Your task to perform on an android device: change notifications settings Image 0: 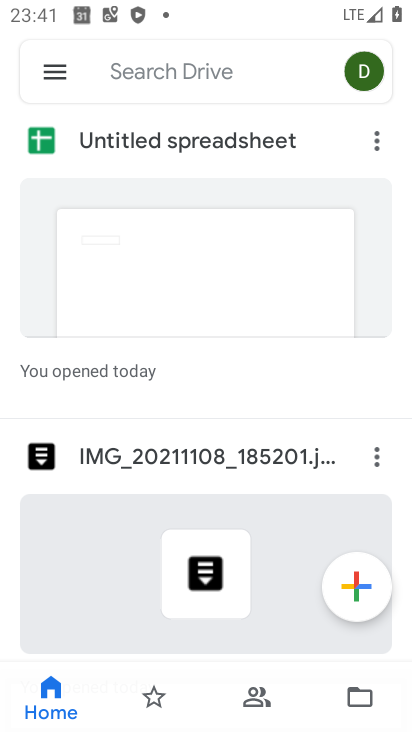
Step 0: press home button
Your task to perform on an android device: change notifications settings Image 1: 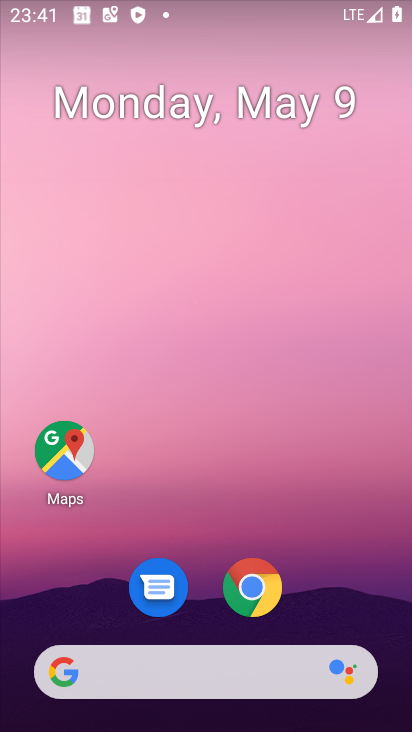
Step 1: drag from (191, 623) to (145, 13)
Your task to perform on an android device: change notifications settings Image 2: 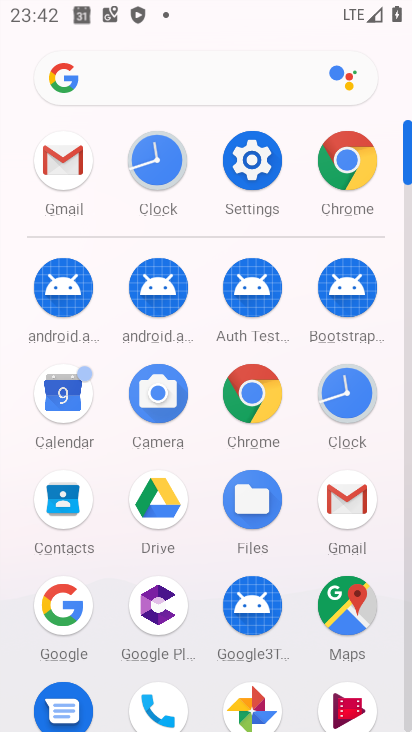
Step 2: click (237, 173)
Your task to perform on an android device: change notifications settings Image 3: 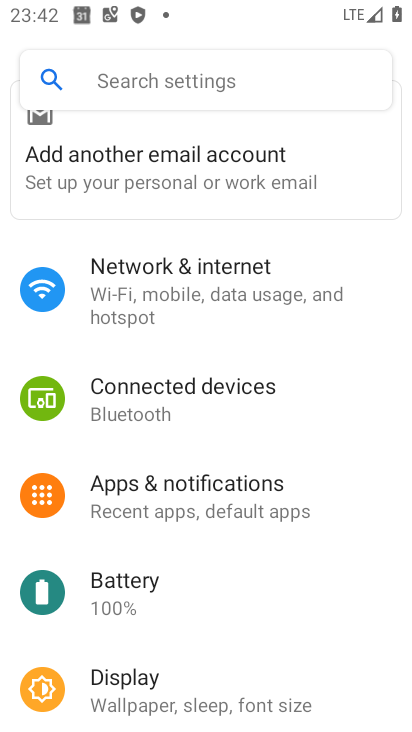
Step 3: click (157, 493)
Your task to perform on an android device: change notifications settings Image 4: 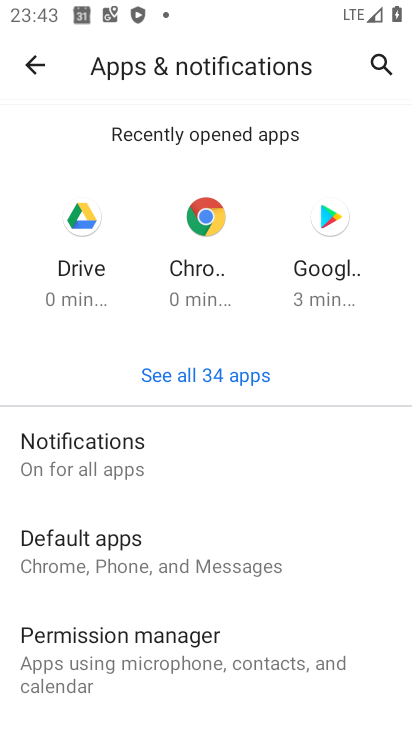
Step 4: click (137, 451)
Your task to perform on an android device: change notifications settings Image 5: 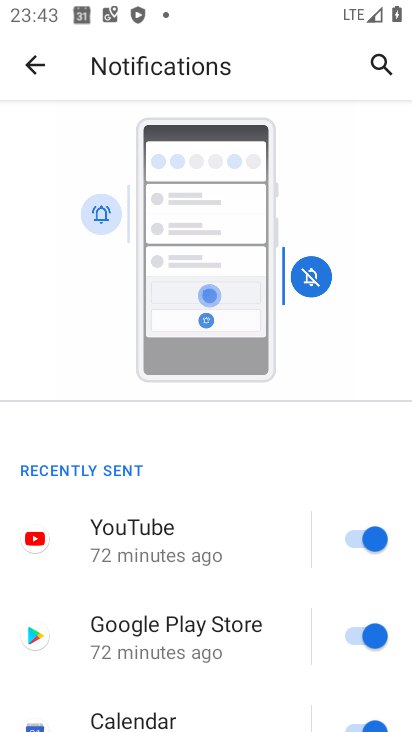
Step 5: drag from (112, 595) to (174, 166)
Your task to perform on an android device: change notifications settings Image 6: 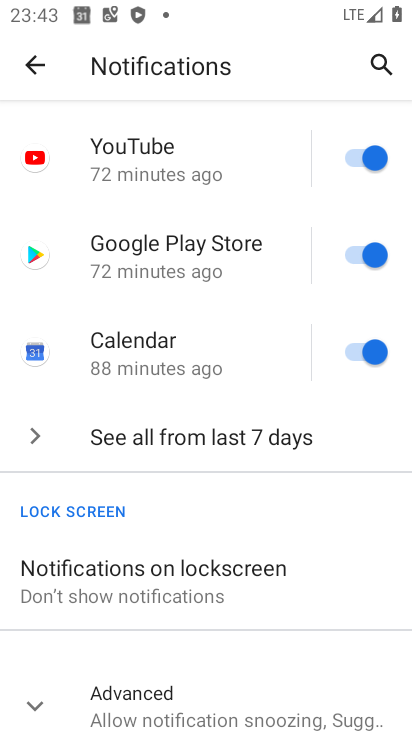
Step 6: drag from (194, 536) to (192, 258)
Your task to perform on an android device: change notifications settings Image 7: 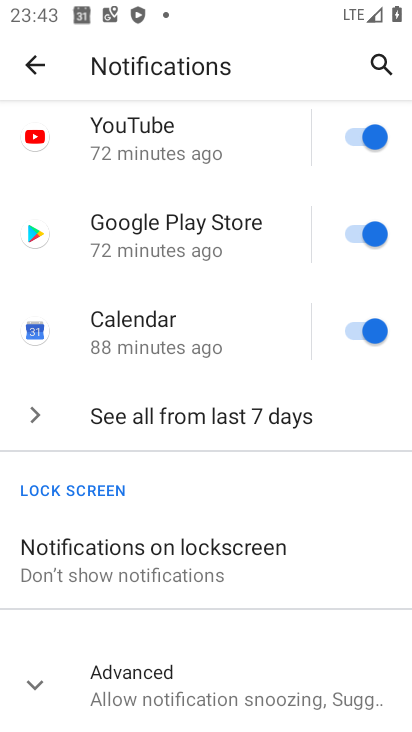
Step 7: click (217, 722)
Your task to perform on an android device: change notifications settings Image 8: 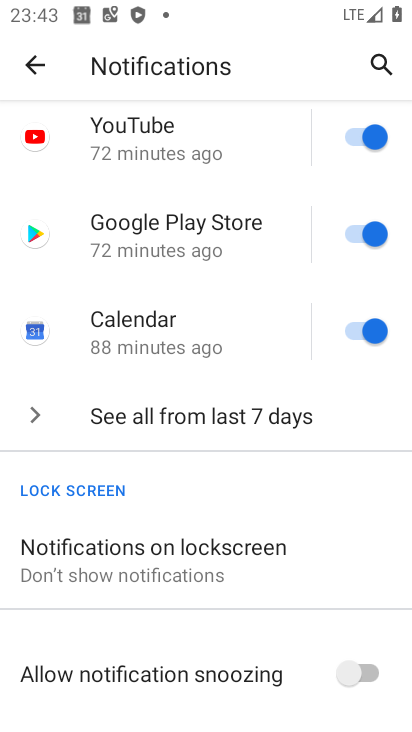
Step 8: drag from (201, 685) to (234, 122)
Your task to perform on an android device: change notifications settings Image 9: 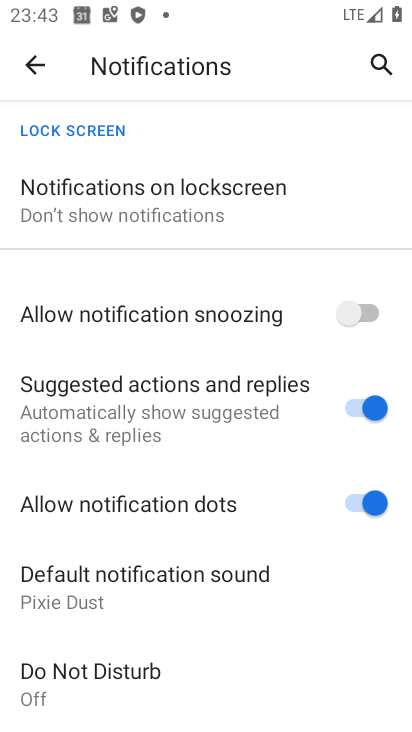
Step 9: click (362, 415)
Your task to perform on an android device: change notifications settings Image 10: 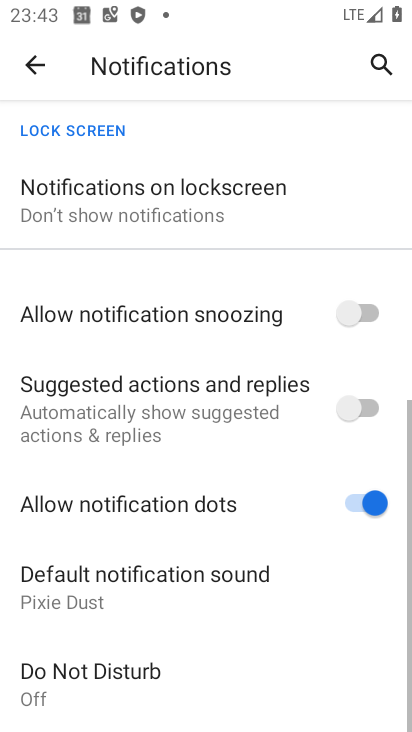
Step 10: click (363, 290)
Your task to perform on an android device: change notifications settings Image 11: 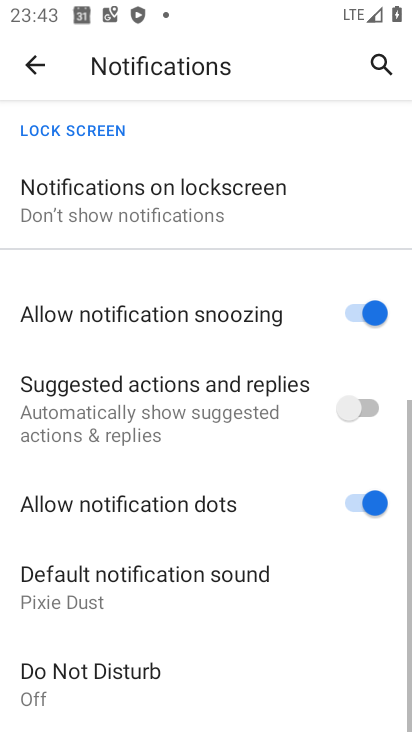
Step 11: click (378, 503)
Your task to perform on an android device: change notifications settings Image 12: 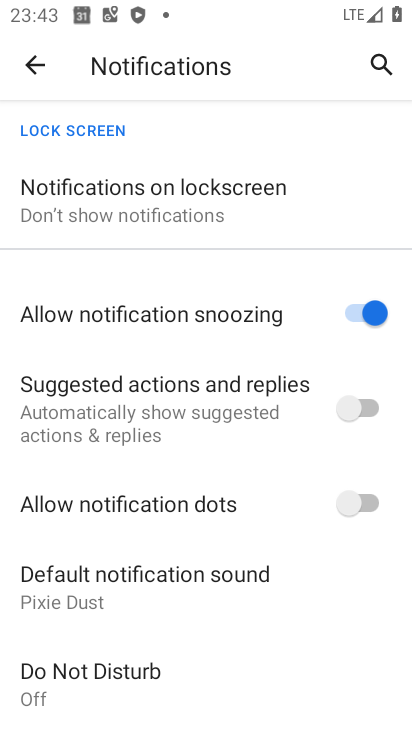
Step 12: task complete